Your task to perform on an android device: Add "usb-a" to the cart on bestbuy.com Image 0: 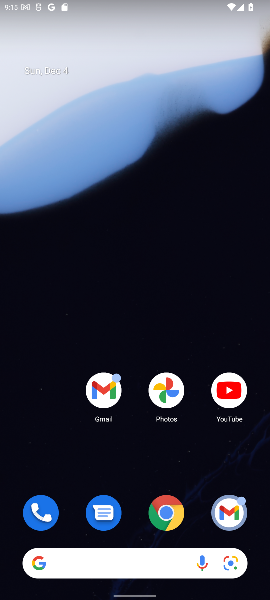
Step 0: click (164, 512)
Your task to perform on an android device: Add "usb-a" to the cart on bestbuy.com Image 1: 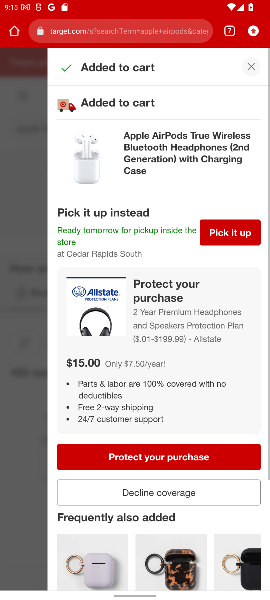
Step 1: click (225, 28)
Your task to perform on an android device: Add "usb-a" to the cart on bestbuy.com Image 2: 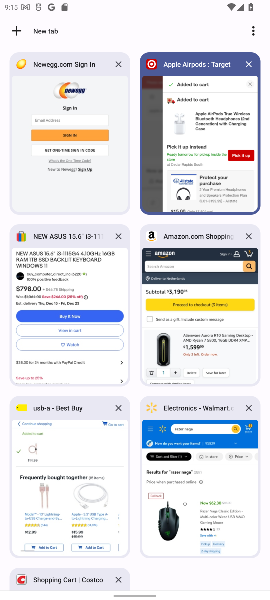
Step 2: click (71, 420)
Your task to perform on an android device: Add "usb-a" to the cart on bestbuy.com Image 3: 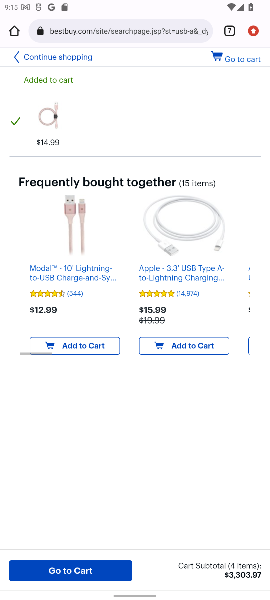
Step 3: click (40, 53)
Your task to perform on an android device: Add "usb-a" to the cart on bestbuy.com Image 4: 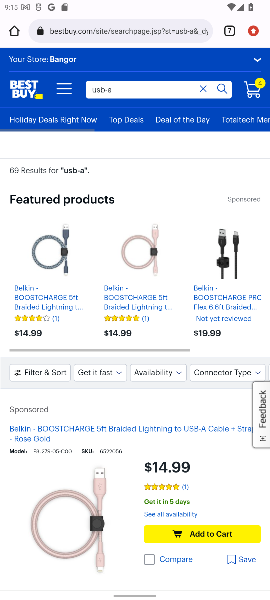
Step 4: click (222, 87)
Your task to perform on an android device: Add "usb-a" to the cart on bestbuy.com Image 5: 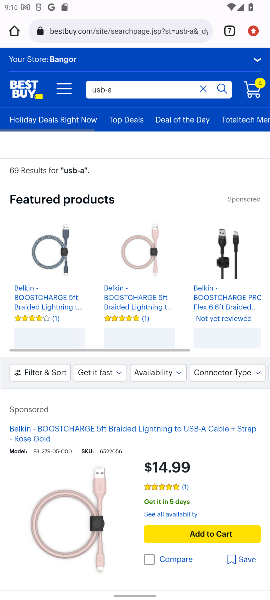
Step 5: click (205, 535)
Your task to perform on an android device: Add "usb-a" to the cart on bestbuy.com Image 6: 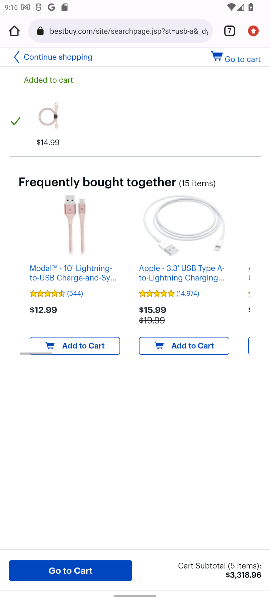
Step 6: task complete